Your task to perform on an android device: turn on location history Image 0: 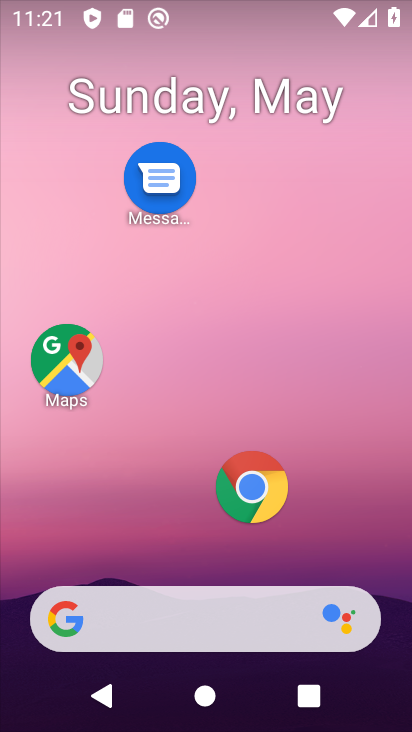
Step 0: drag from (169, 569) to (213, 3)
Your task to perform on an android device: turn on location history Image 1: 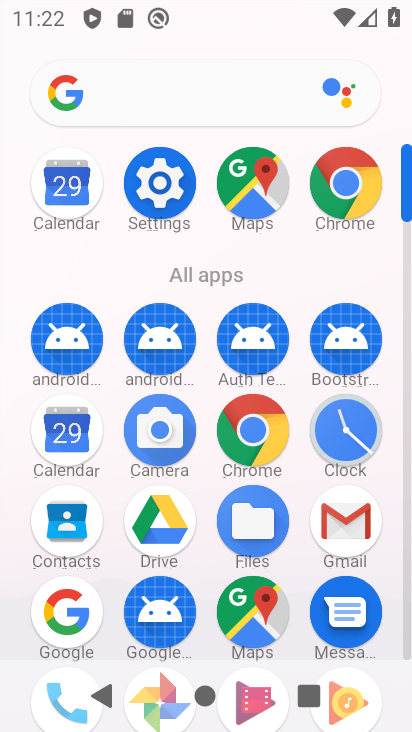
Step 1: click (177, 194)
Your task to perform on an android device: turn on location history Image 2: 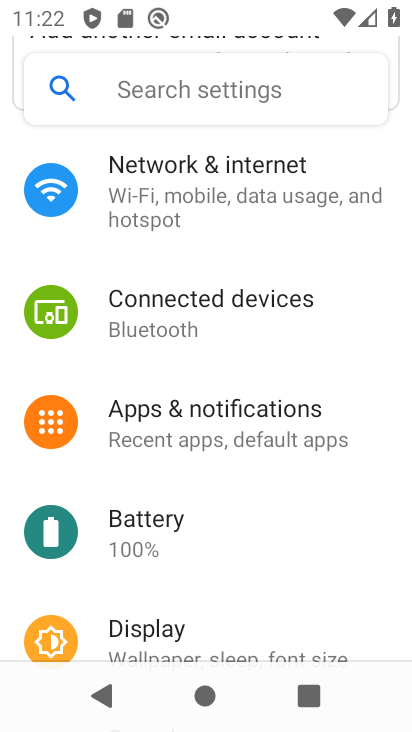
Step 2: drag from (184, 605) to (211, 57)
Your task to perform on an android device: turn on location history Image 3: 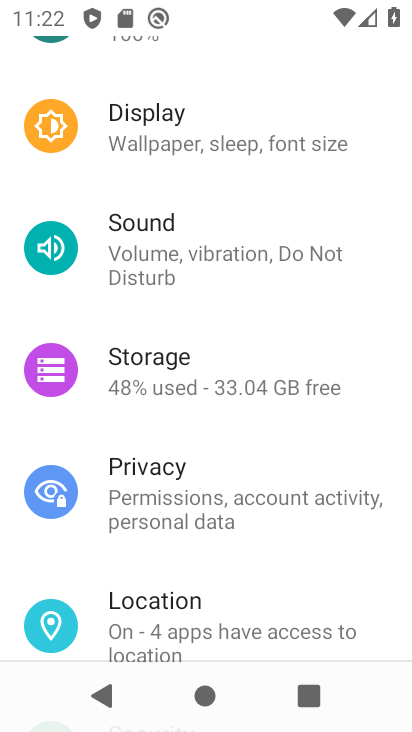
Step 3: click (174, 634)
Your task to perform on an android device: turn on location history Image 4: 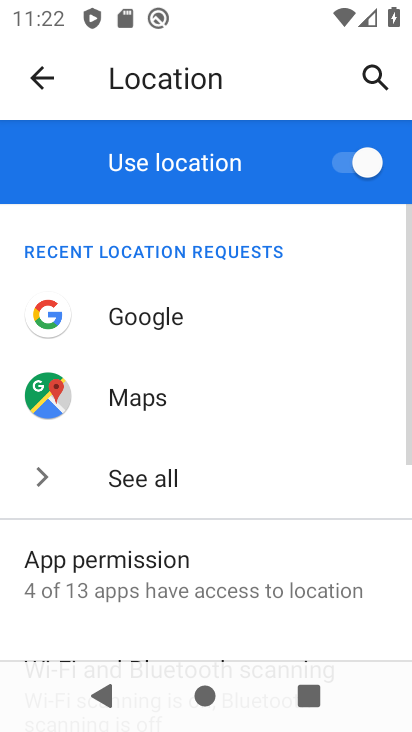
Step 4: drag from (244, 558) to (219, 11)
Your task to perform on an android device: turn on location history Image 5: 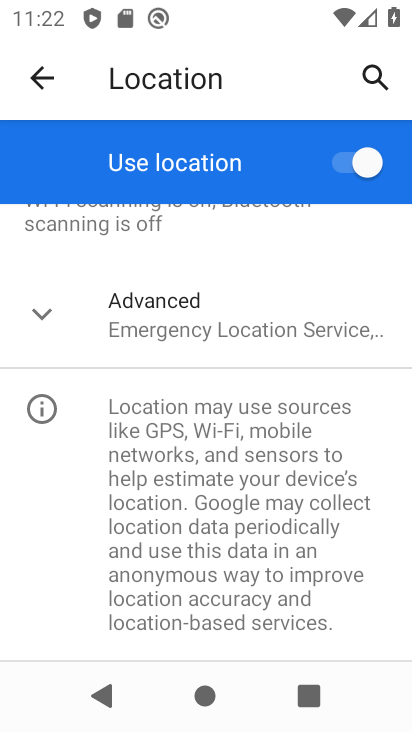
Step 5: click (191, 341)
Your task to perform on an android device: turn on location history Image 6: 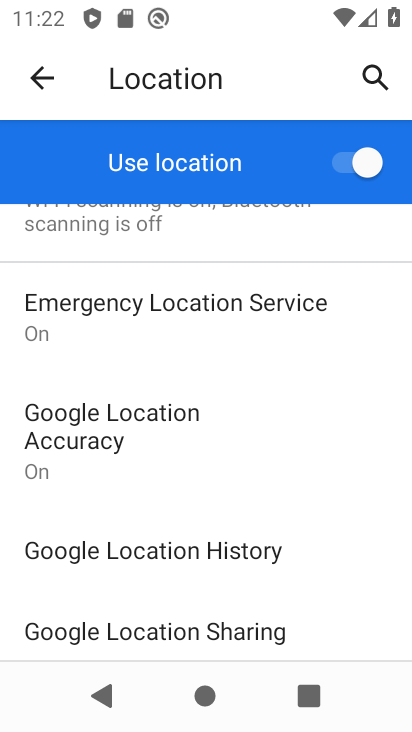
Step 6: click (155, 546)
Your task to perform on an android device: turn on location history Image 7: 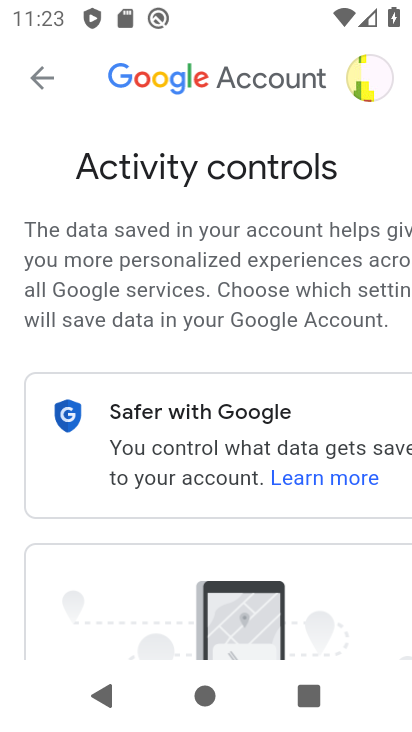
Step 7: drag from (228, 571) to (265, 5)
Your task to perform on an android device: turn on location history Image 8: 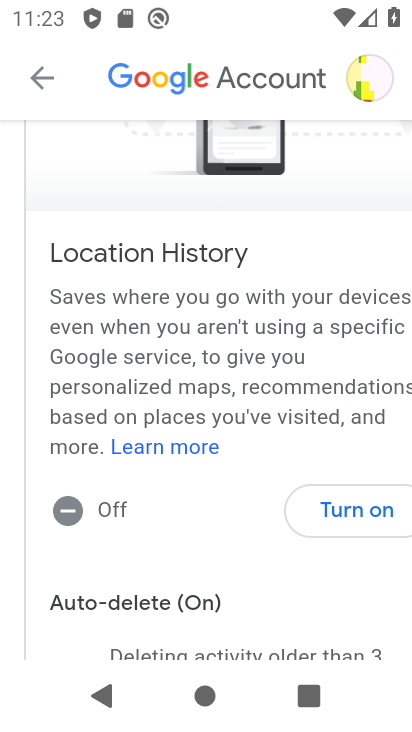
Step 8: click (334, 501)
Your task to perform on an android device: turn on location history Image 9: 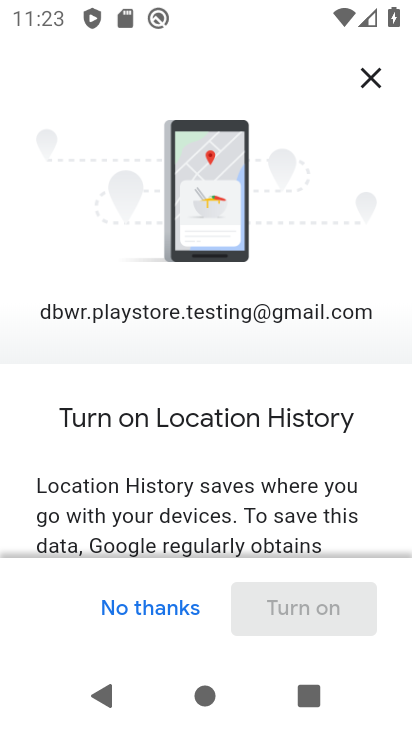
Step 9: drag from (269, 535) to (271, 33)
Your task to perform on an android device: turn on location history Image 10: 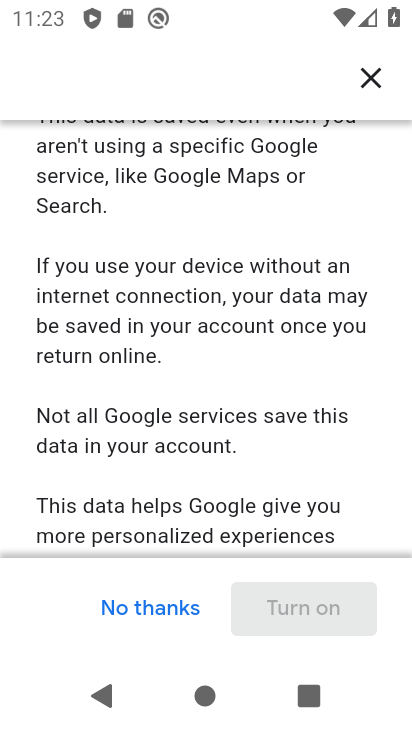
Step 10: drag from (227, 491) to (272, 0)
Your task to perform on an android device: turn on location history Image 11: 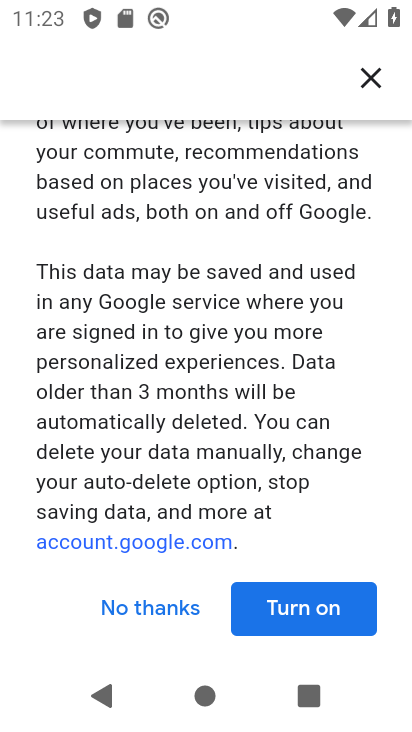
Step 11: click (307, 598)
Your task to perform on an android device: turn on location history Image 12: 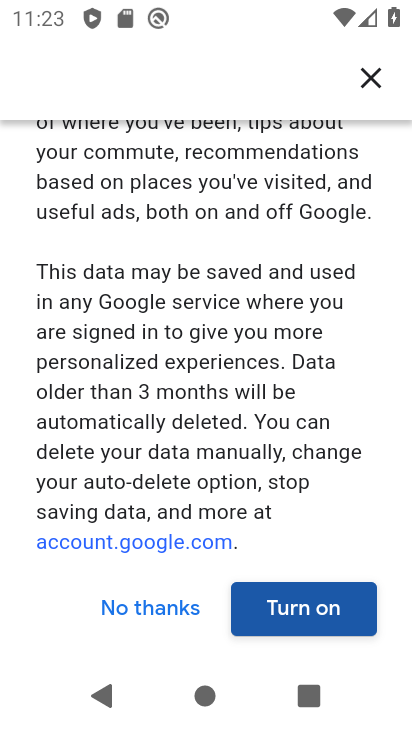
Step 12: click (310, 592)
Your task to perform on an android device: turn on location history Image 13: 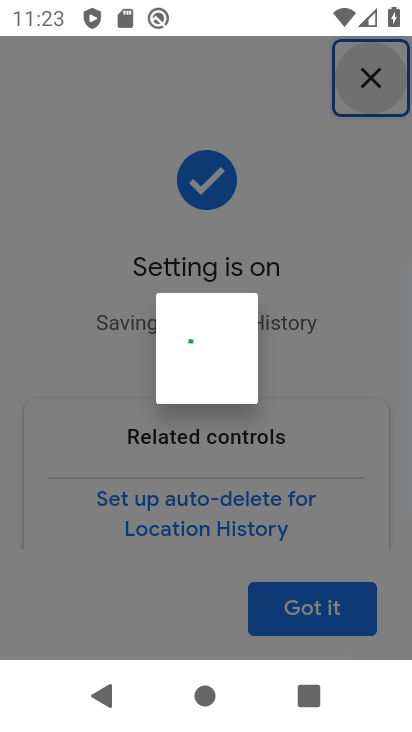
Step 13: click (307, 614)
Your task to perform on an android device: turn on location history Image 14: 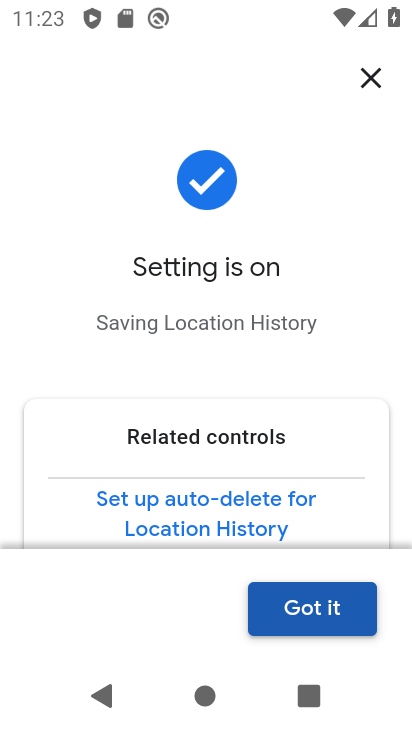
Step 14: task complete